Your task to perform on an android device: Open calendar and show me the fourth week of next month Image 0: 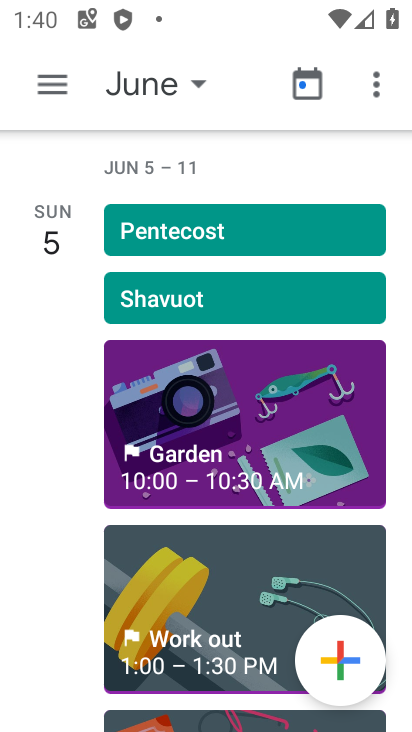
Step 0: click (57, 81)
Your task to perform on an android device: Open calendar and show me the fourth week of next month Image 1: 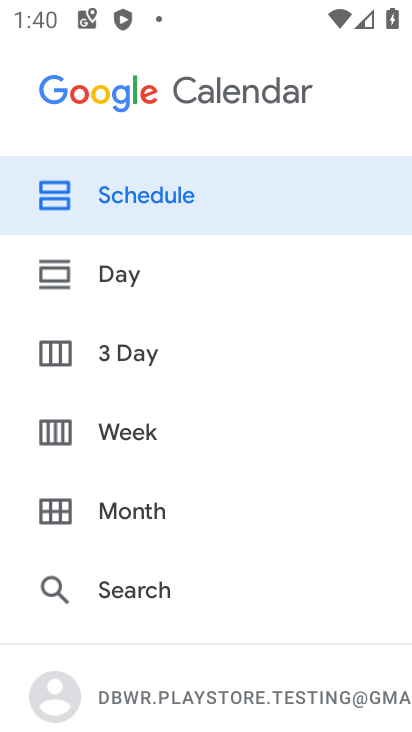
Step 1: click (131, 428)
Your task to perform on an android device: Open calendar and show me the fourth week of next month Image 2: 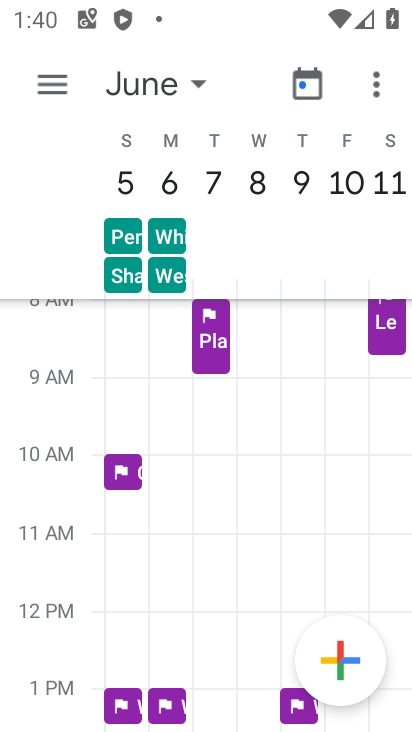
Step 2: click (193, 83)
Your task to perform on an android device: Open calendar and show me the fourth week of next month Image 3: 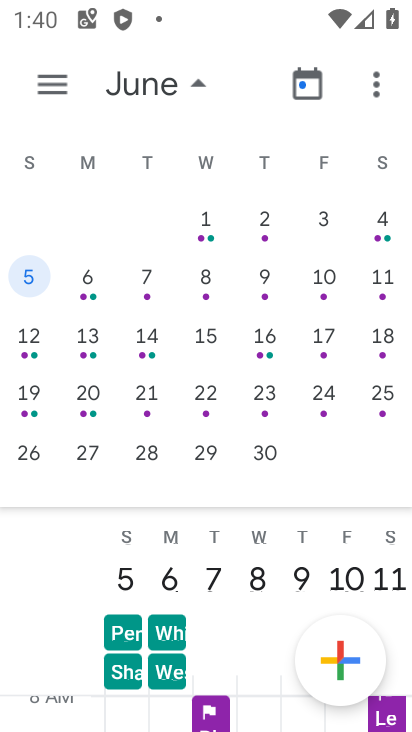
Step 3: click (23, 442)
Your task to perform on an android device: Open calendar and show me the fourth week of next month Image 4: 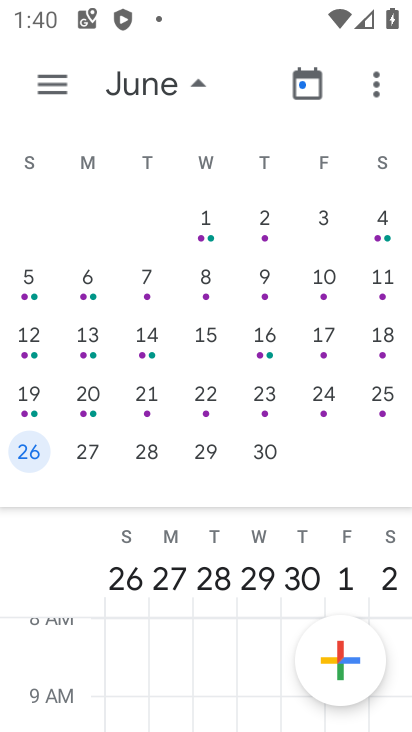
Step 4: task complete